Your task to perform on an android device: visit the assistant section in the google photos Image 0: 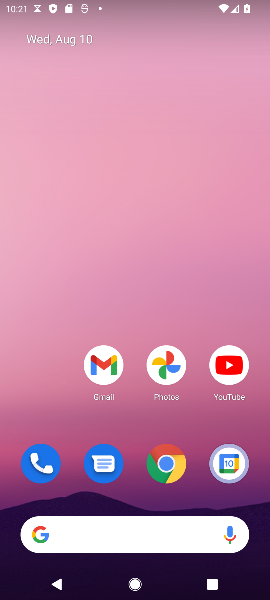
Step 0: click (182, 369)
Your task to perform on an android device: visit the assistant section in the google photos Image 1: 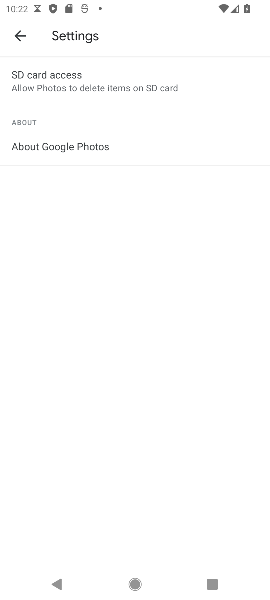
Step 1: click (14, 33)
Your task to perform on an android device: visit the assistant section in the google photos Image 2: 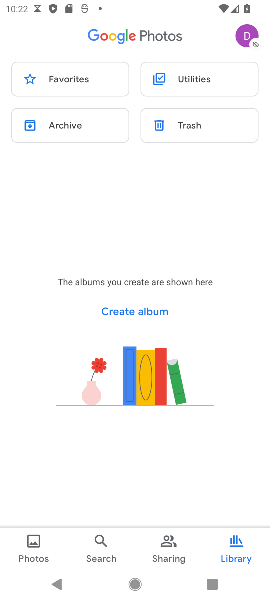
Step 2: click (17, 554)
Your task to perform on an android device: visit the assistant section in the google photos Image 3: 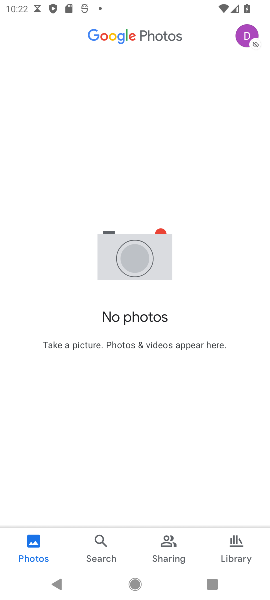
Step 3: click (241, 38)
Your task to perform on an android device: visit the assistant section in the google photos Image 4: 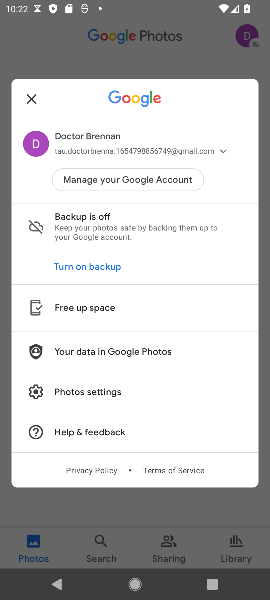
Step 4: click (46, 508)
Your task to perform on an android device: visit the assistant section in the google photos Image 5: 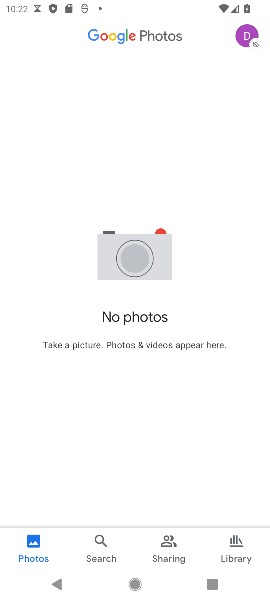
Step 5: task complete